Your task to perform on an android device: turn vacation reply on in the gmail app Image 0: 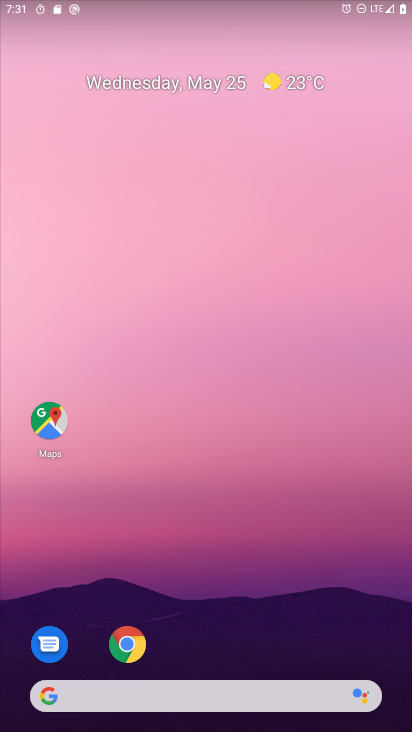
Step 0: drag from (373, 627) to (270, 2)
Your task to perform on an android device: turn vacation reply on in the gmail app Image 1: 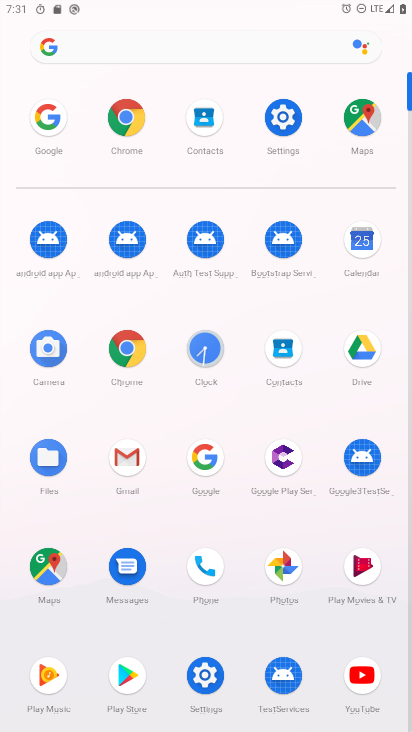
Step 1: click (118, 459)
Your task to perform on an android device: turn vacation reply on in the gmail app Image 2: 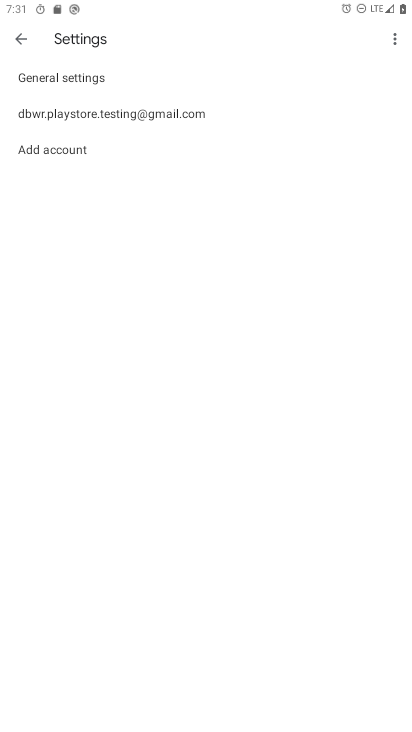
Step 2: click (106, 111)
Your task to perform on an android device: turn vacation reply on in the gmail app Image 3: 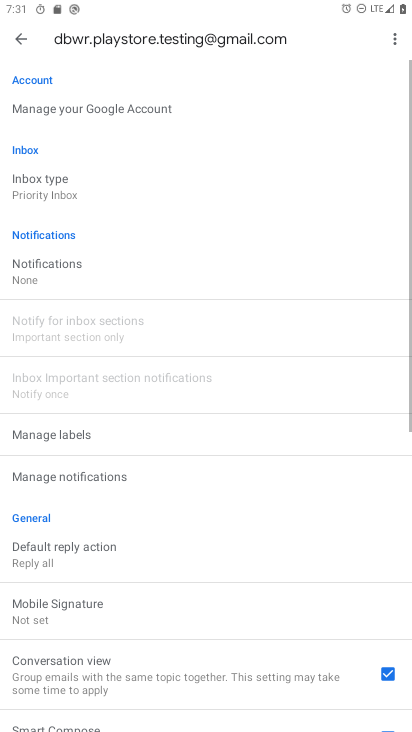
Step 3: drag from (234, 639) to (237, 74)
Your task to perform on an android device: turn vacation reply on in the gmail app Image 4: 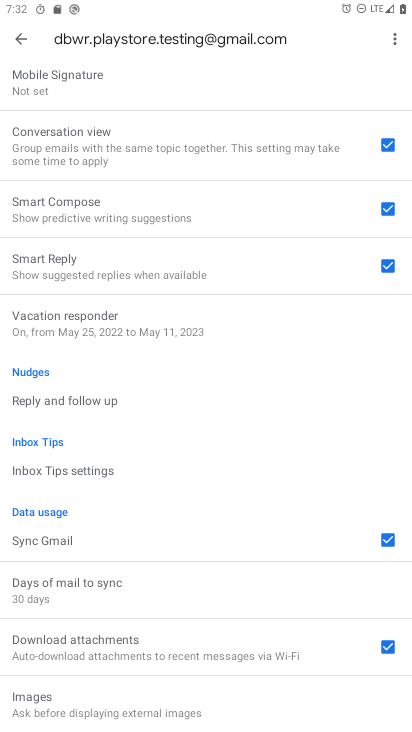
Step 4: click (103, 329)
Your task to perform on an android device: turn vacation reply on in the gmail app Image 5: 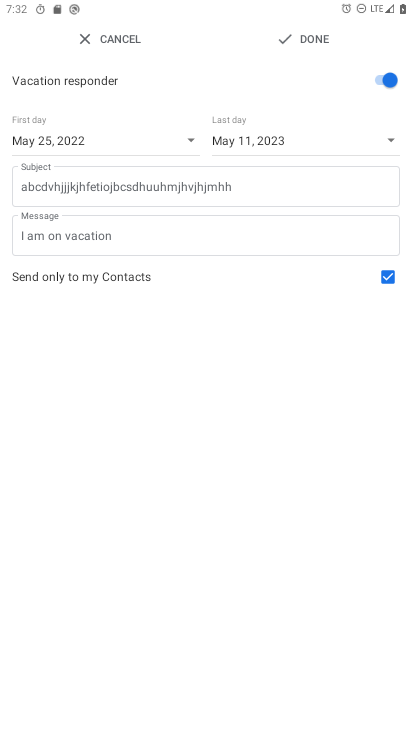
Step 5: task complete